Your task to perform on an android device: empty trash in google photos Image 0: 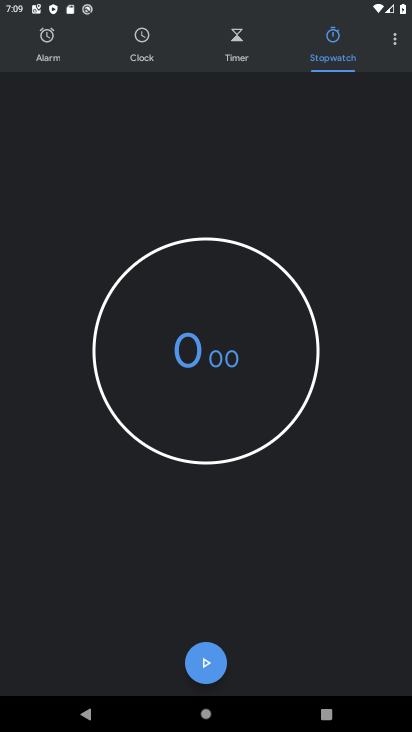
Step 0: press home button
Your task to perform on an android device: empty trash in google photos Image 1: 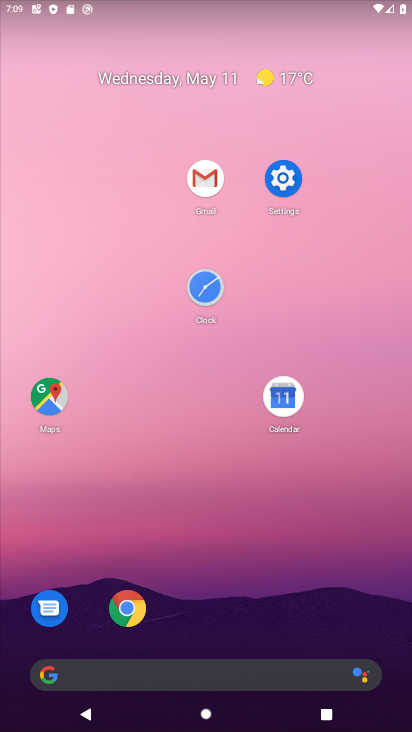
Step 1: drag from (239, 570) to (156, 122)
Your task to perform on an android device: empty trash in google photos Image 2: 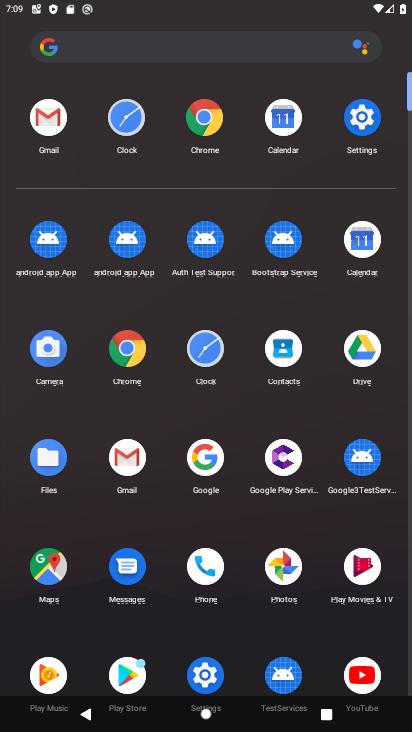
Step 2: click (289, 560)
Your task to perform on an android device: empty trash in google photos Image 3: 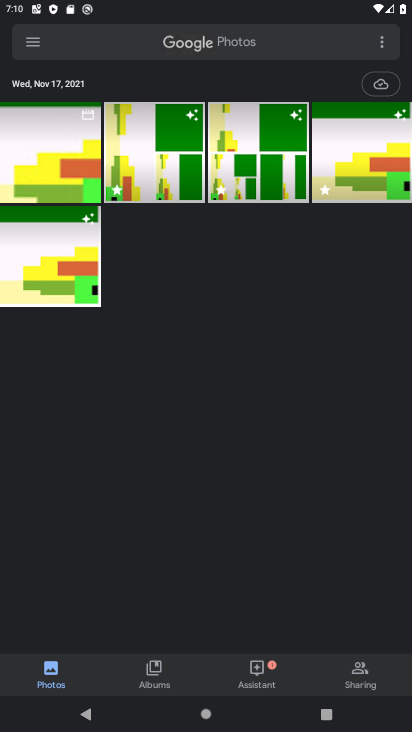
Step 3: click (31, 54)
Your task to perform on an android device: empty trash in google photos Image 4: 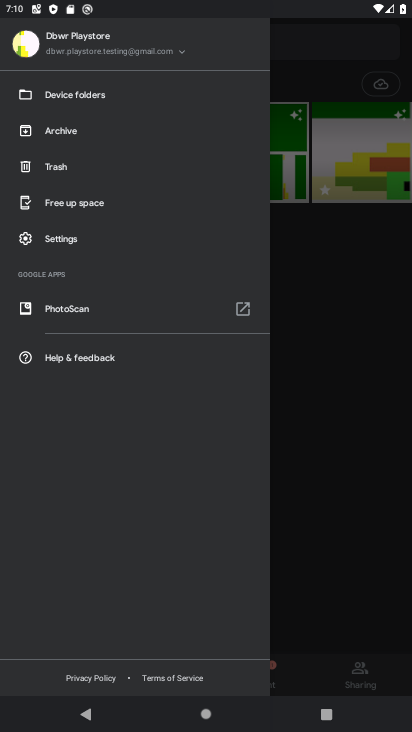
Step 4: click (48, 169)
Your task to perform on an android device: empty trash in google photos Image 5: 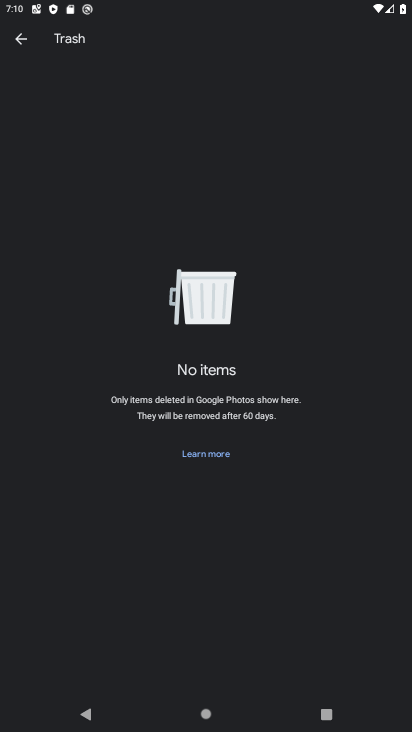
Step 5: task complete